Your task to perform on an android device: turn notification dots off Image 0: 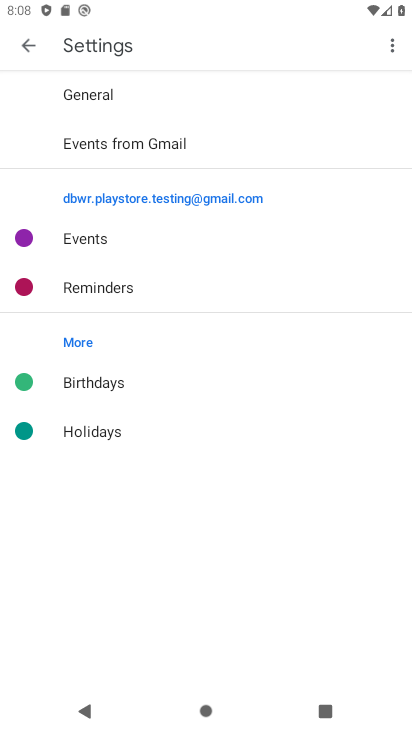
Step 0: press home button
Your task to perform on an android device: turn notification dots off Image 1: 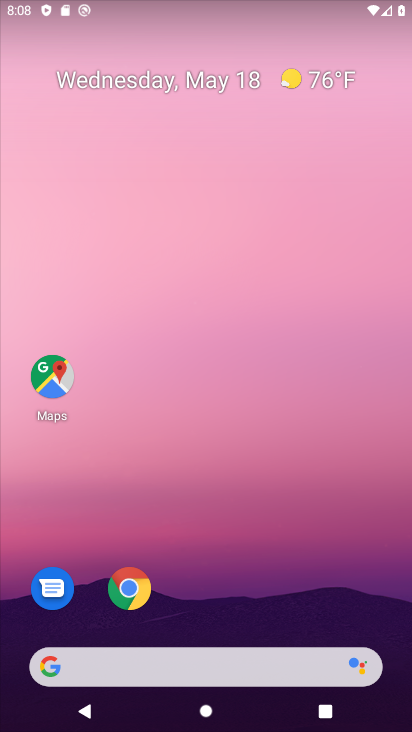
Step 1: drag from (250, 573) to (251, 80)
Your task to perform on an android device: turn notification dots off Image 2: 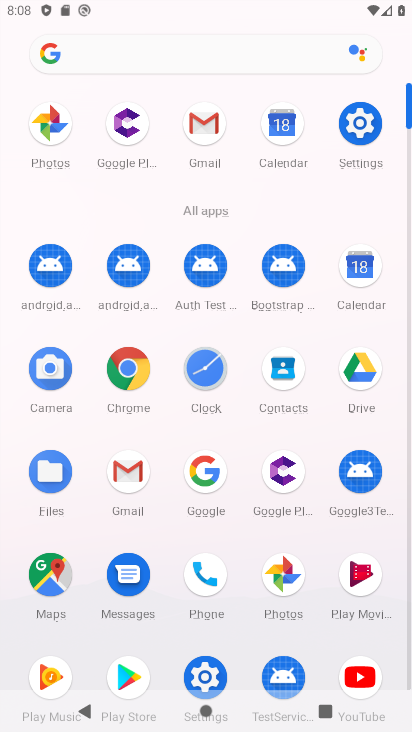
Step 2: click (350, 158)
Your task to perform on an android device: turn notification dots off Image 3: 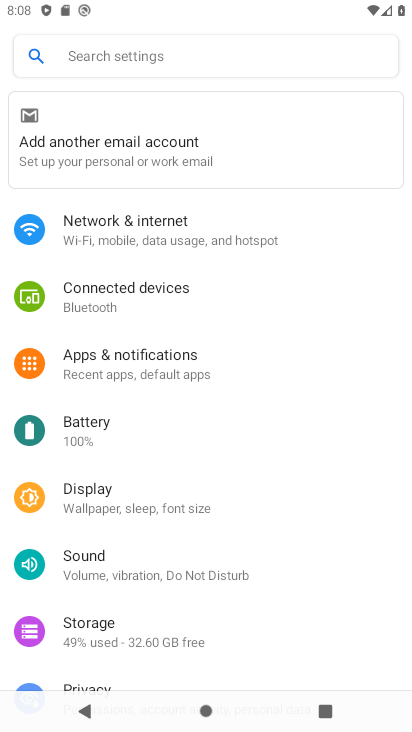
Step 3: click (153, 389)
Your task to perform on an android device: turn notification dots off Image 4: 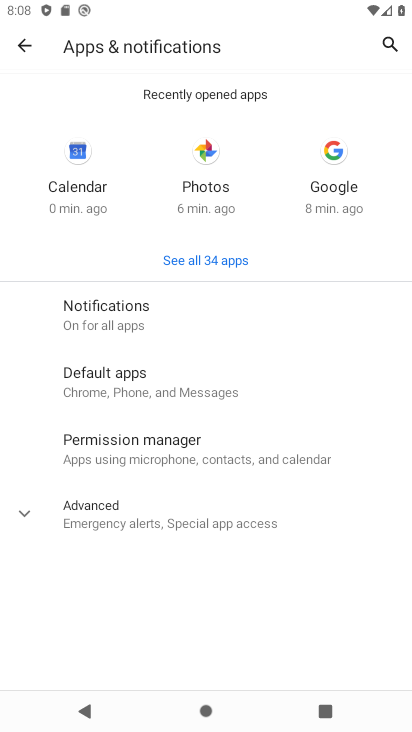
Step 4: click (131, 424)
Your task to perform on an android device: turn notification dots off Image 5: 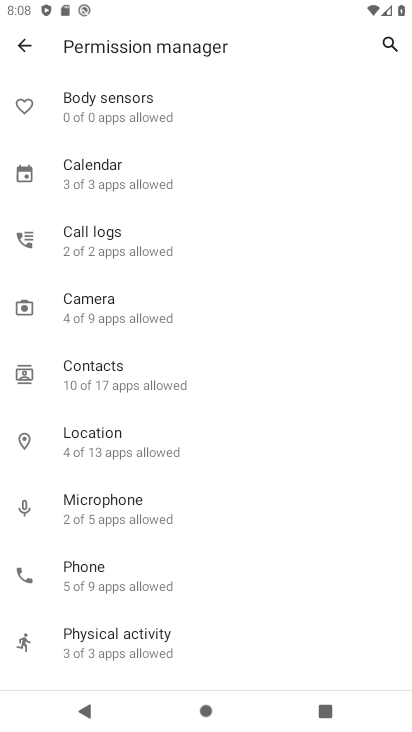
Step 5: click (10, 62)
Your task to perform on an android device: turn notification dots off Image 6: 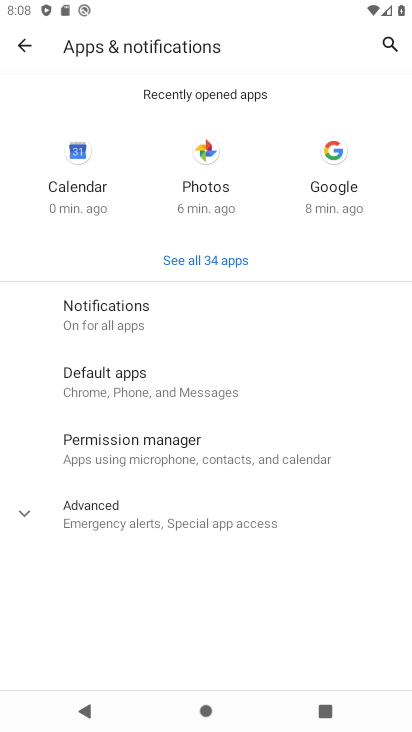
Step 6: click (163, 328)
Your task to perform on an android device: turn notification dots off Image 7: 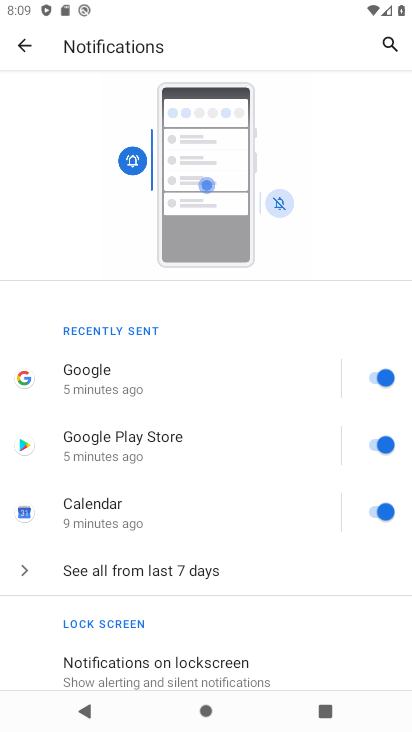
Step 7: drag from (143, 647) to (188, 300)
Your task to perform on an android device: turn notification dots off Image 8: 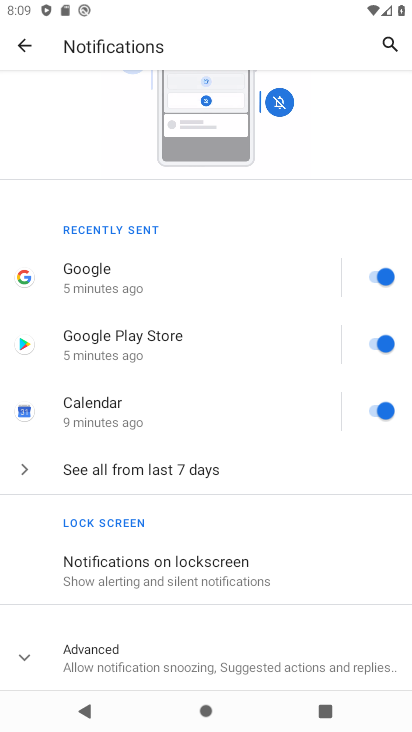
Step 8: click (169, 651)
Your task to perform on an android device: turn notification dots off Image 9: 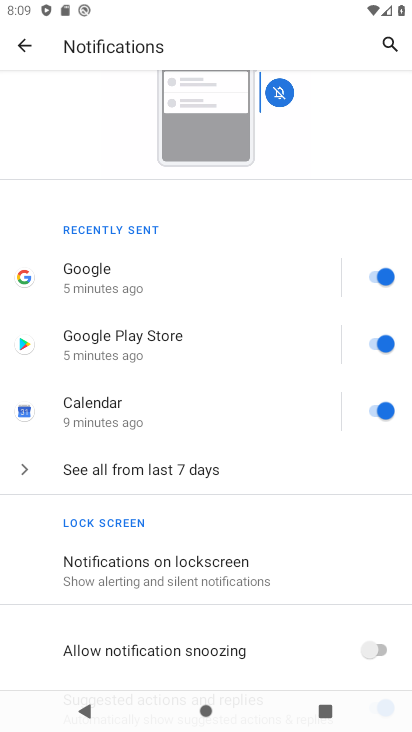
Step 9: drag from (227, 552) to (254, 280)
Your task to perform on an android device: turn notification dots off Image 10: 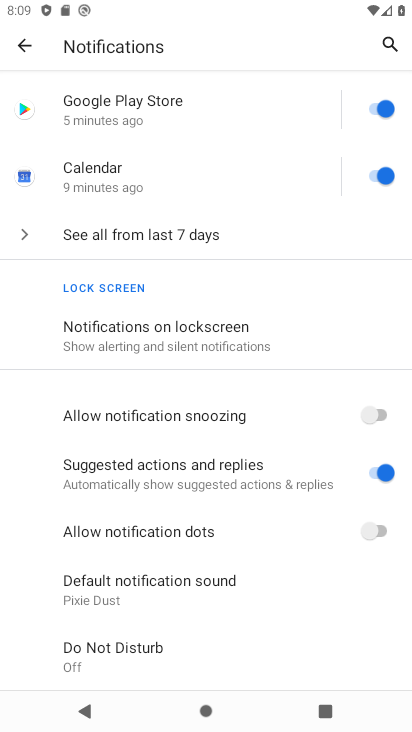
Step 10: click (261, 537)
Your task to perform on an android device: turn notification dots off Image 11: 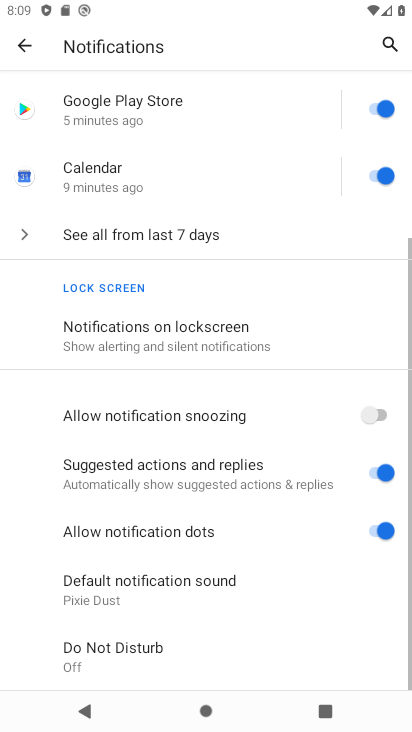
Step 11: click (318, 499)
Your task to perform on an android device: turn notification dots off Image 12: 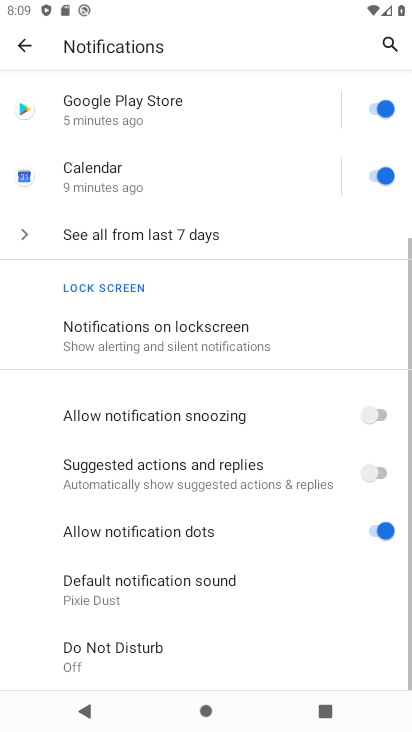
Step 12: click (349, 537)
Your task to perform on an android device: turn notification dots off Image 13: 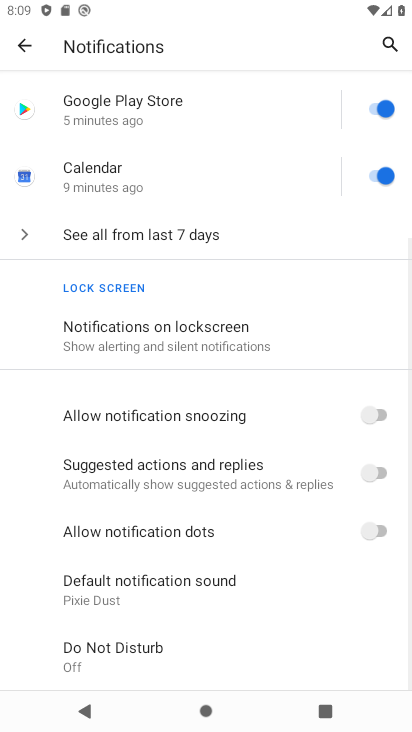
Step 13: task complete